Your task to perform on an android device: find which apps use the phone's location Image 0: 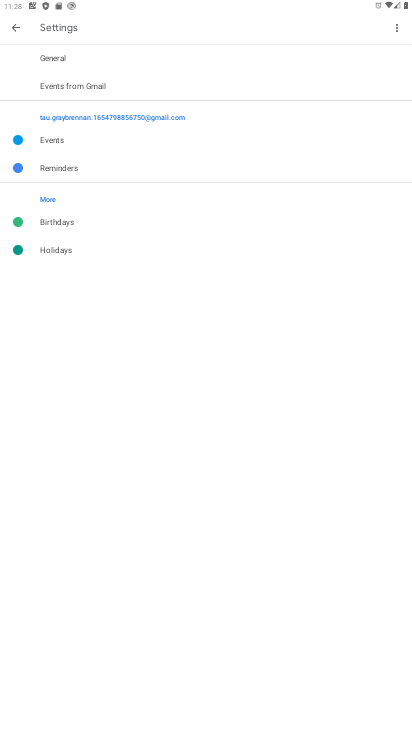
Step 0: press home button
Your task to perform on an android device: find which apps use the phone's location Image 1: 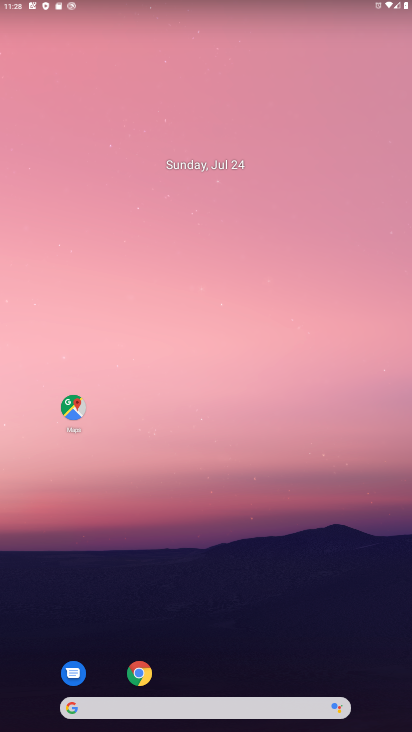
Step 1: drag from (283, 563) to (223, 103)
Your task to perform on an android device: find which apps use the phone's location Image 2: 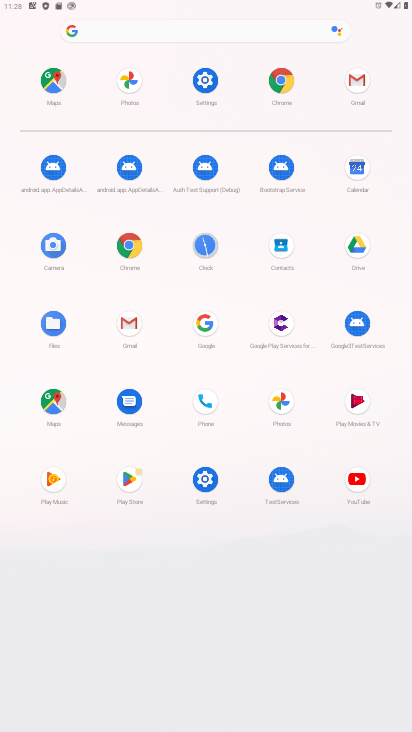
Step 2: click (218, 471)
Your task to perform on an android device: find which apps use the phone's location Image 3: 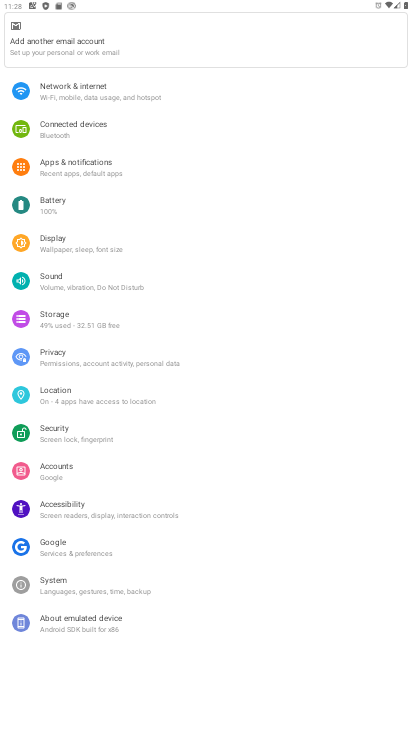
Step 3: click (89, 175)
Your task to perform on an android device: find which apps use the phone's location Image 4: 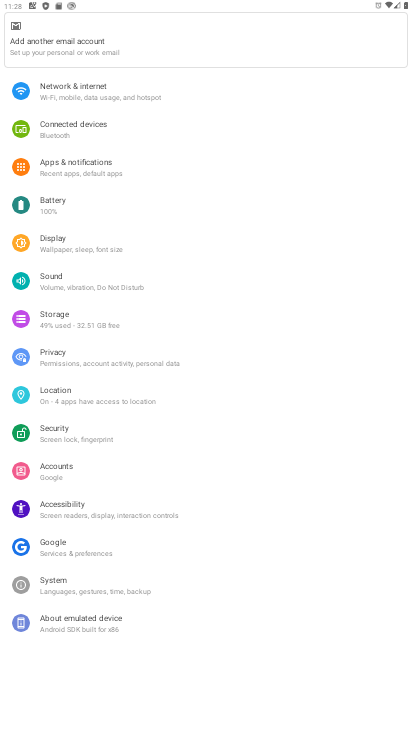
Step 4: click (91, 171)
Your task to perform on an android device: find which apps use the phone's location Image 5: 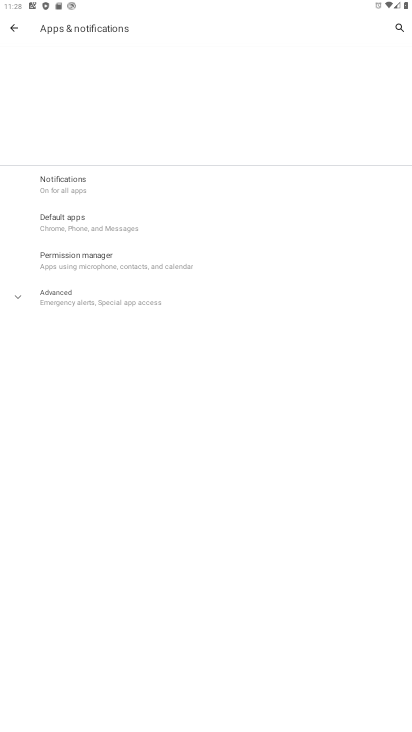
Step 5: click (93, 179)
Your task to perform on an android device: find which apps use the phone's location Image 6: 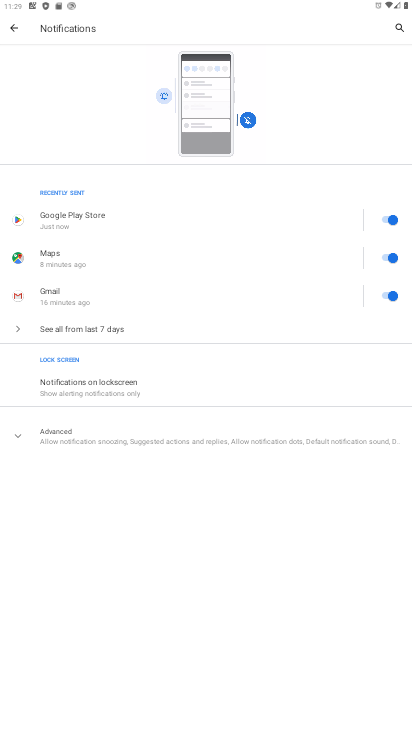
Step 6: click (33, 30)
Your task to perform on an android device: find which apps use the phone's location Image 7: 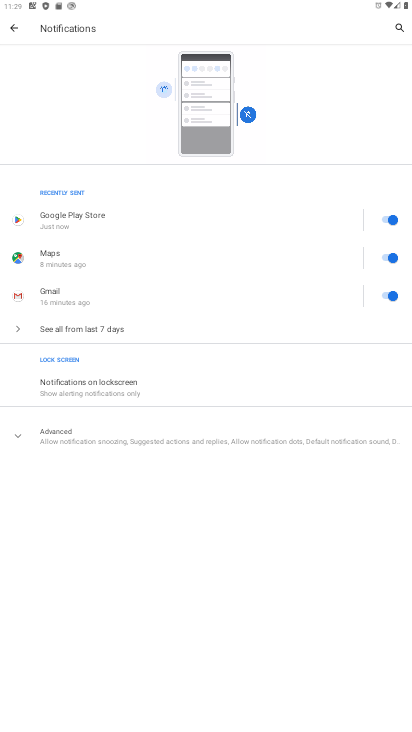
Step 7: click (25, 29)
Your task to perform on an android device: find which apps use the phone's location Image 8: 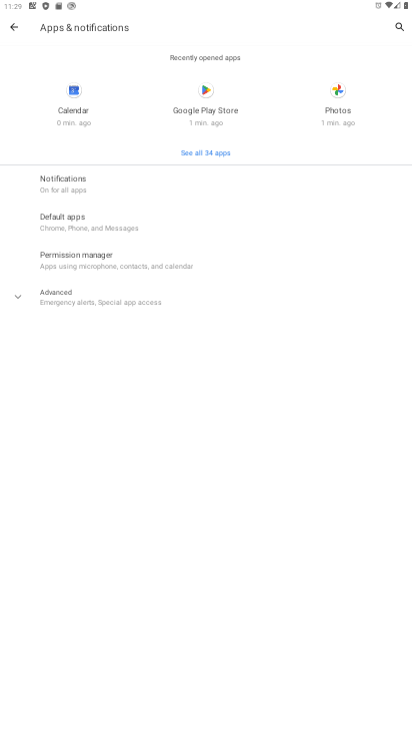
Step 8: click (13, 28)
Your task to perform on an android device: find which apps use the phone's location Image 9: 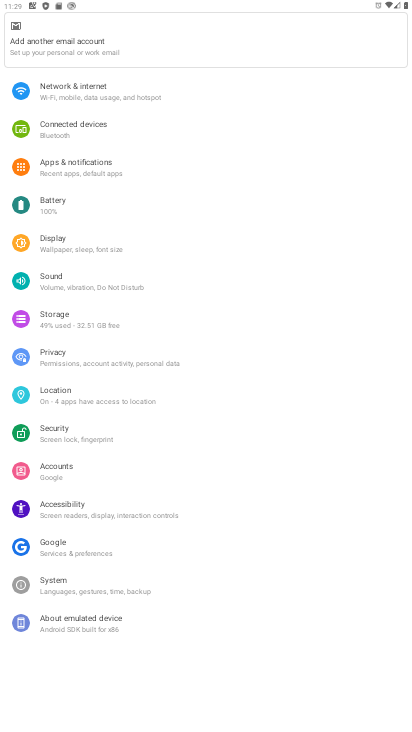
Step 9: click (85, 388)
Your task to perform on an android device: find which apps use the phone's location Image 10: 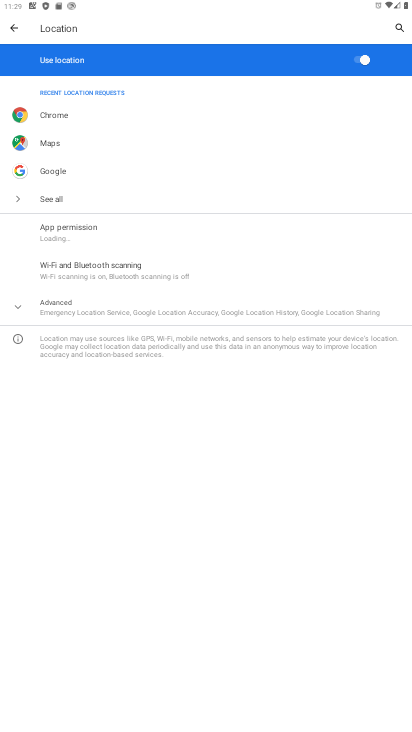
Step 10: click (85, 234)
Your task to perform on an android device: find which apps use the phone's location Image 11: 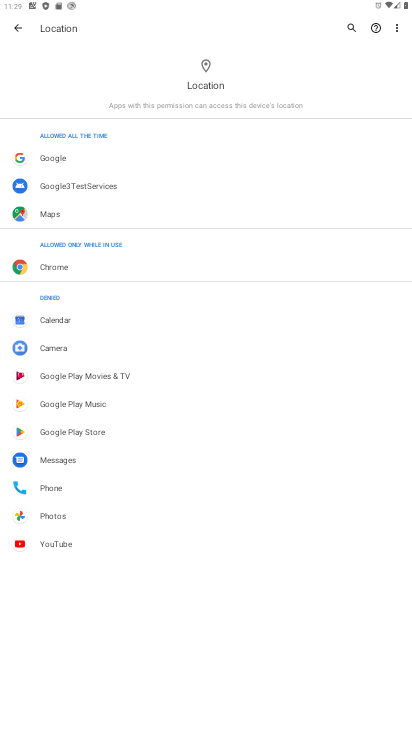
Step 11: task complete